Your task to perform on an android device: Go to wifi settings Image 0: 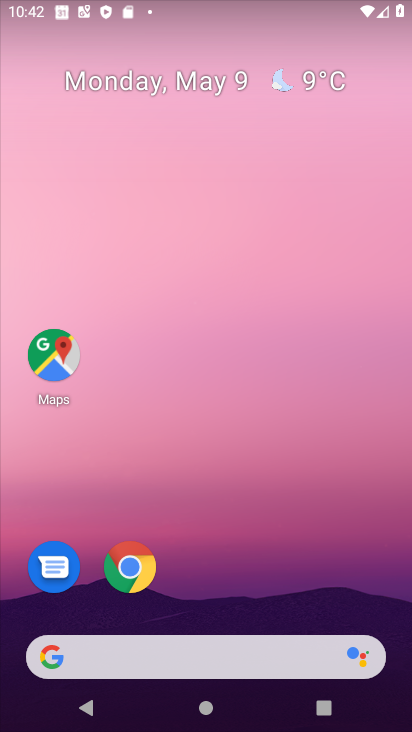
Step 0: drag from (200, 616) to (223, 95)
Your task to perform on an android device: Go to wifi settings Image 1: 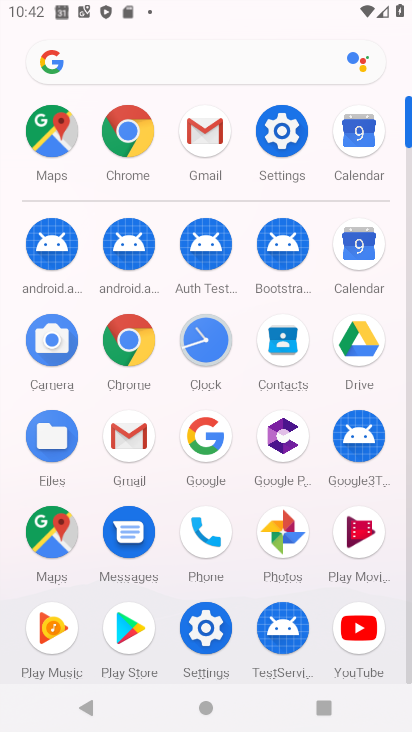
Step 1: press home button
Your task to perform on an android device: Go to wifi settings Image 2: 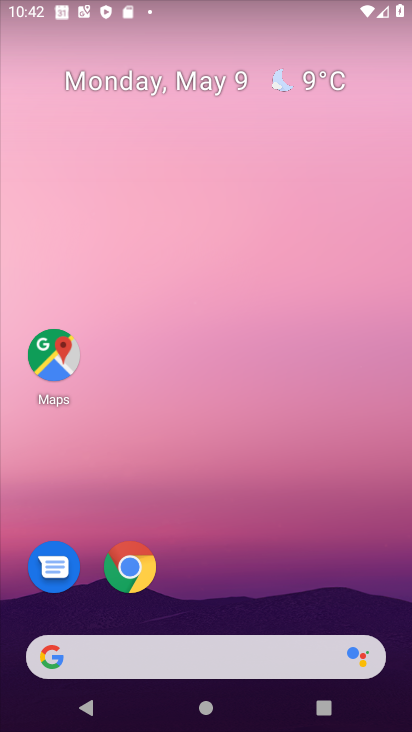
Step 2: drag from (199, 610) to (216, 62)
Your task to perform on an android device: Go to wifi settings Image 3: 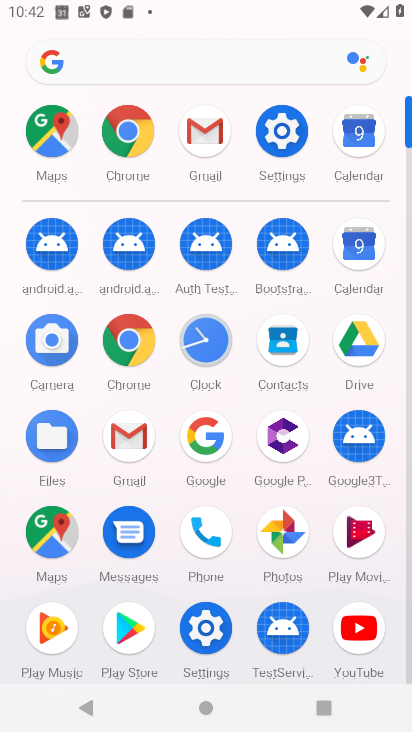
Step 3: click (283, 122)
Your task to perform on an android device: Go to wifi settings Image 4: 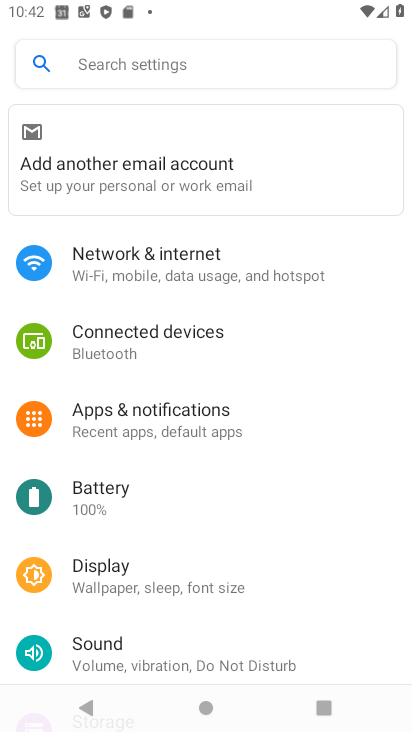
Step 4: click (195, 269)
Your task to perform on an android device: Go to wifi settings Image 5: 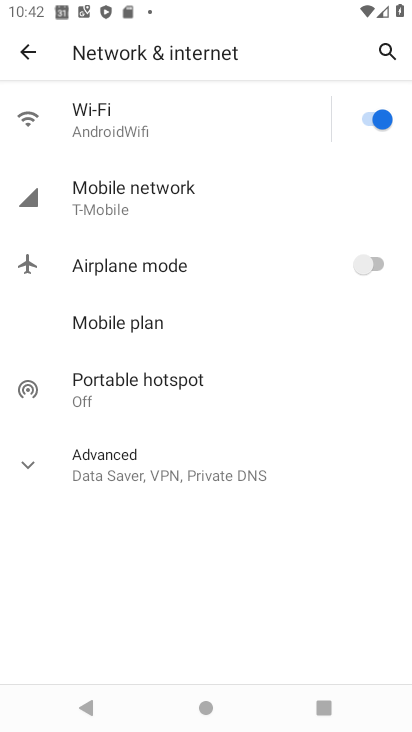
Step 5: click (175, 121)
Your task to perform on an android device: Go to wifi settings Image 6: 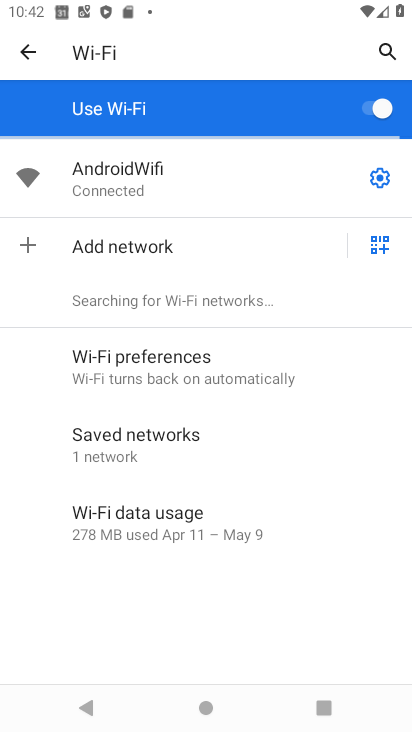
Step 6: task complete